Your task to perform on an android device: turn off wifi Image 0: 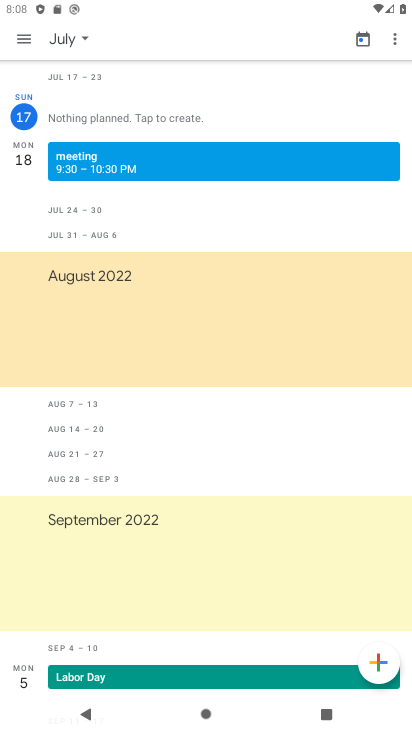
Step 0: press home button
Your task to perform on an android device: turn off wifi Image 1: 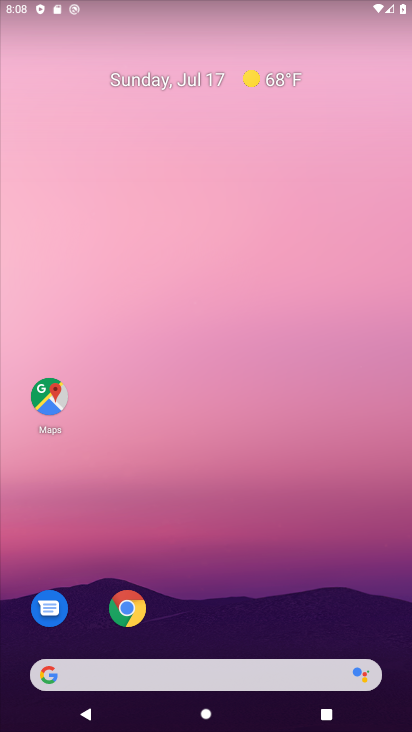
Step 1: drag from (248, 601) to (313, 7)
Your task to perform on an android device: turn off wifi Image 2: 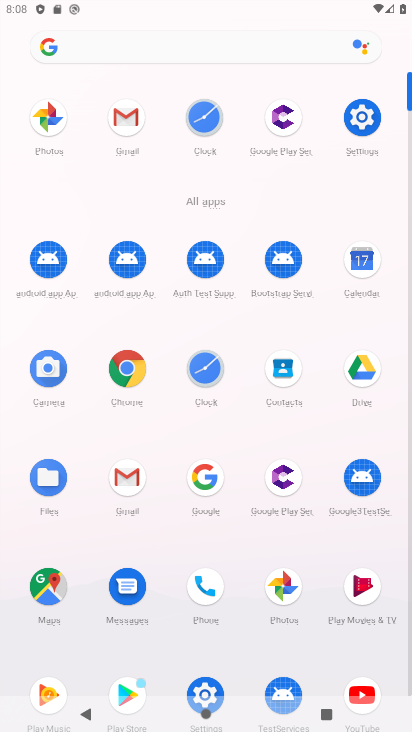
Step 2: click (350, 126)
Your task to perform on an android device: turn off wifi Image 3: 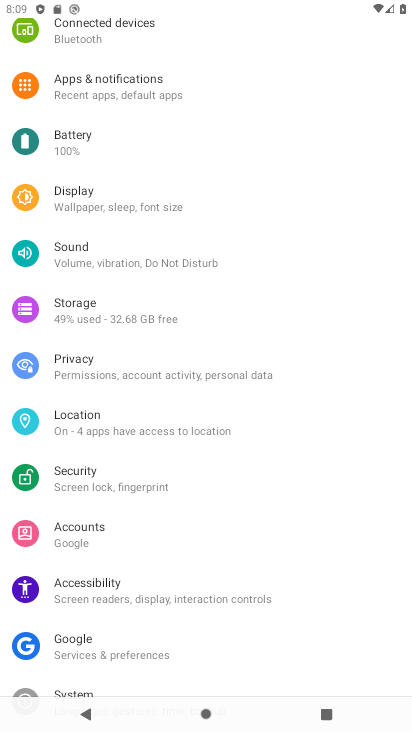
Step 3: drag from (196, 100) to (193, 531)
Your task to perform on an android device: turn off wifi Image 4: 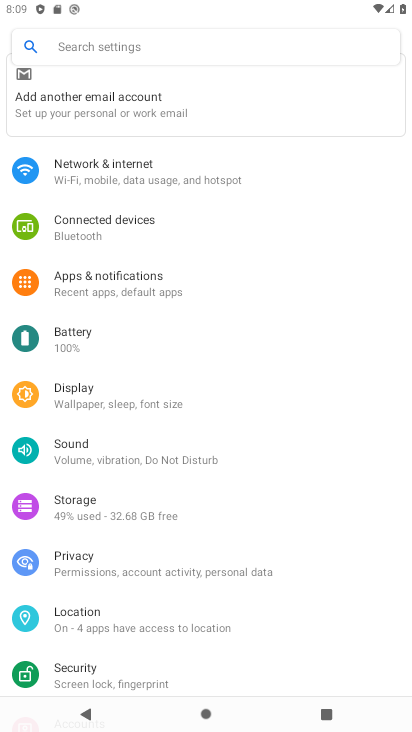
Step 4: click (183, 164)
Your task to perform on an android device: turn off wifi Image 5: 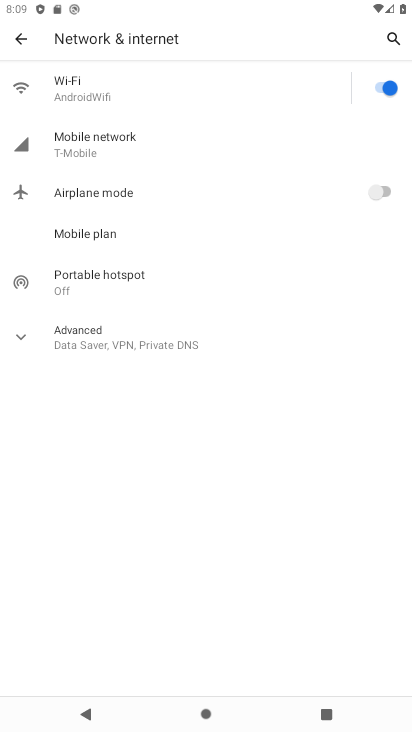
Step 5: click (392, 91)
Your task to perform on an android device: turn off wifi Image 6: 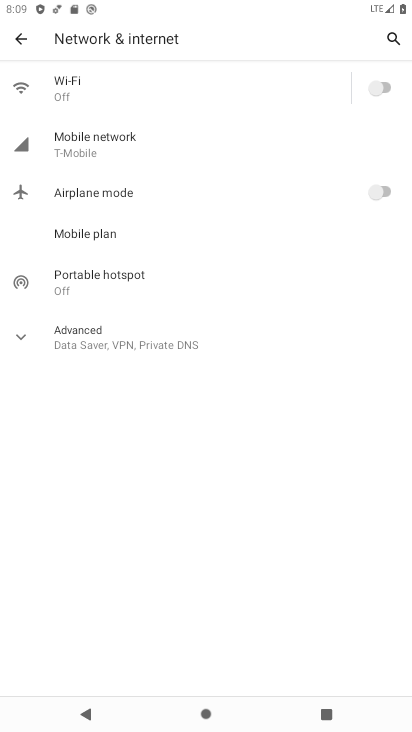
Step 6: task complete